Your task to perform on an android device: Check the news Image 0: 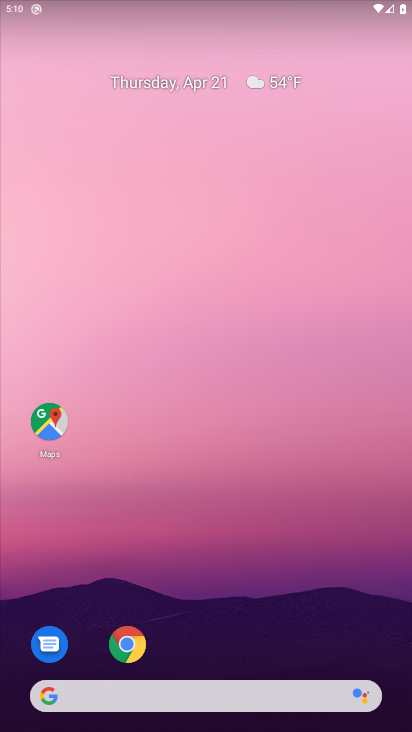
Step 0: drag from (163, 559) to (205, 172)
Your task to perform on an android device: Check the news Image 1: 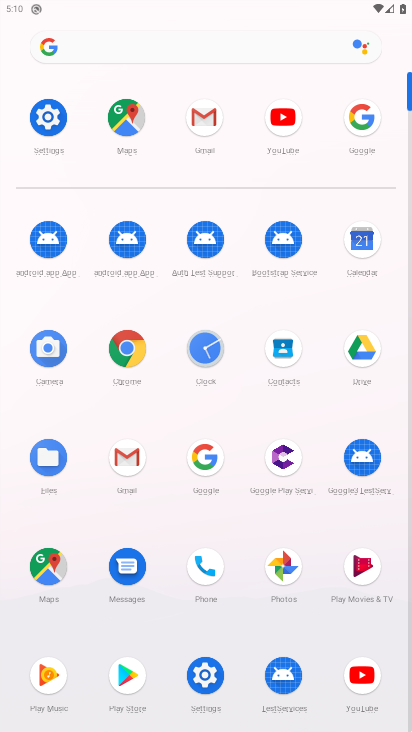
Step 1: click (198, 457)
Your task to perform on an android device: Check the news Image 2: 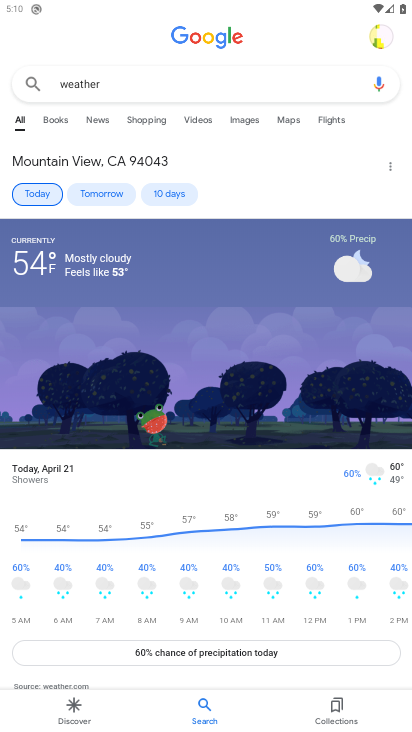
Step 2: click (104, 81)
Your task to perform on an android device: Check the news Image 3: 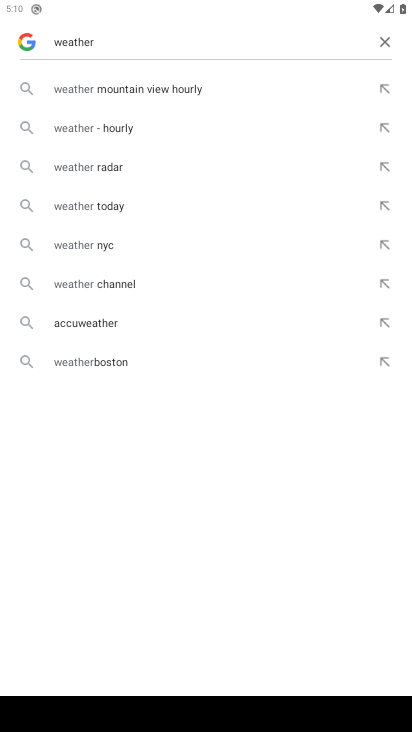
Step 3: click (59, 40)
Your task to perform on an android device: Check the news Image 4: 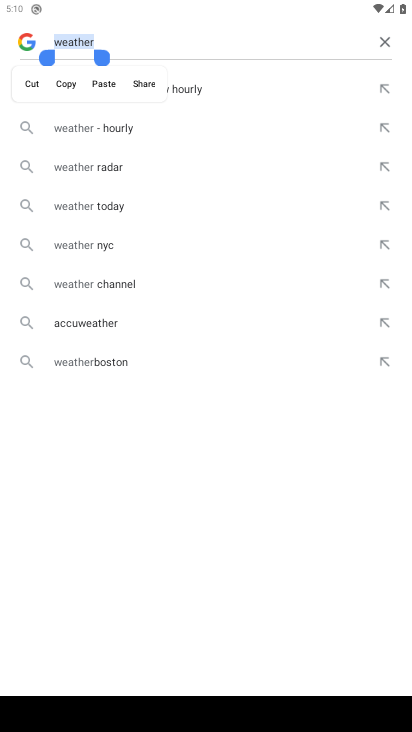
Step 4: click (35, 82)
Your task to perform on an android device: Check the news Image 5: 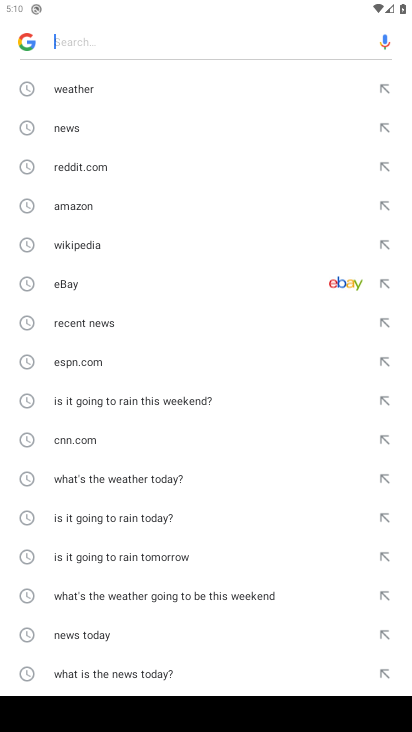
Step 5: click (59, 129)
Your task to perform on an android device: Check the news Image 6: 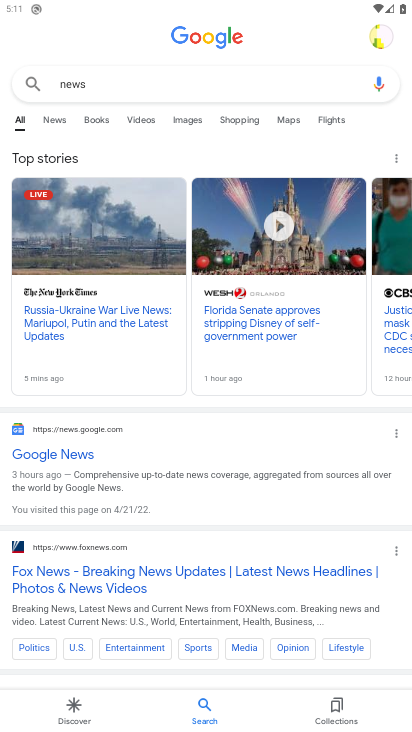
Step 6: task complete